Your task to perform on an android device: toggle improve location accuracy Image 0: 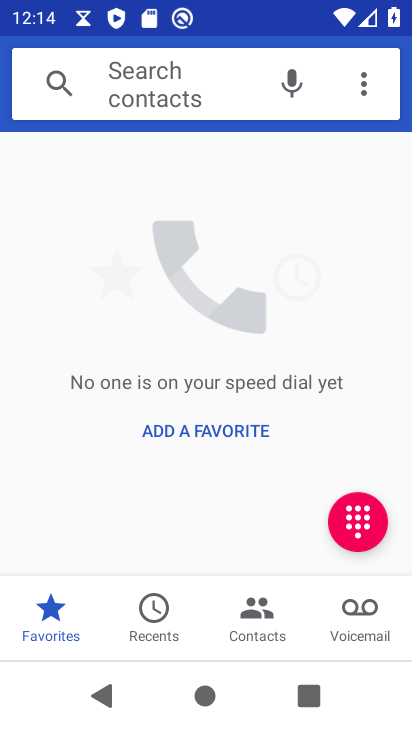
Step 0: press back button
Your task to perform on an android device: toggle improve location accuracy Image 1: 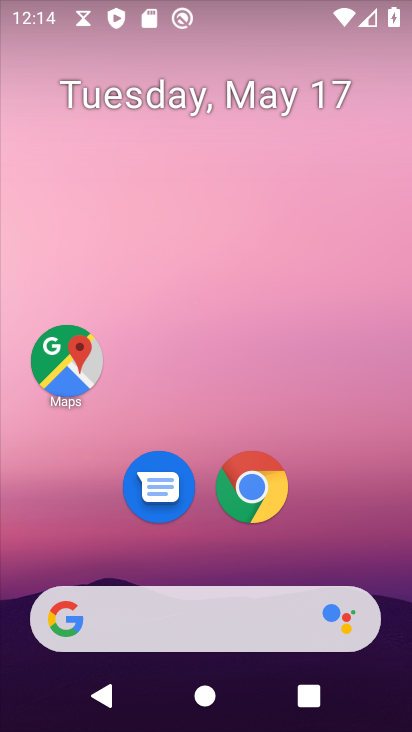
Step 1: drag from (370, 546) to (290, 51)
Your task to perform on an android device: toggle improve location accuracy Image 2: 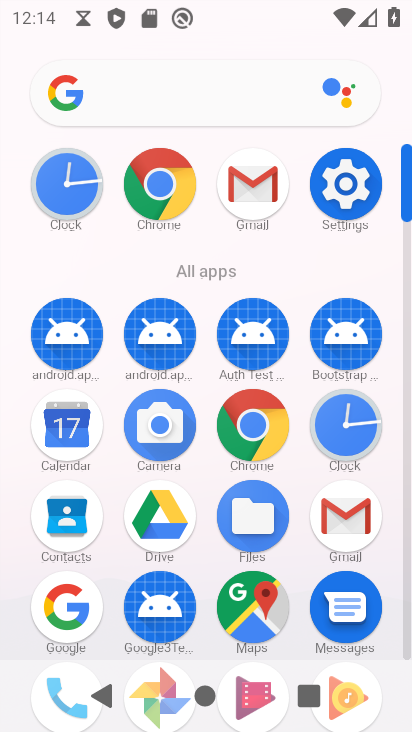
Step 2: click (344, 183)
Your task to perform on an android device: toggle improve location accuracy Image 3: 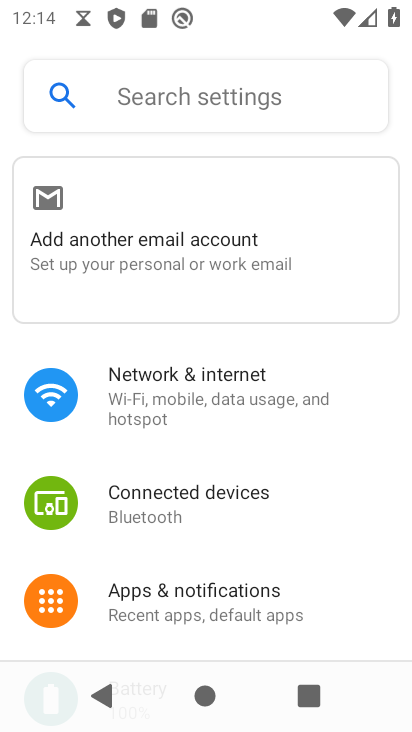
Step 3: drag from (280, 531) to (305, 182)
Your task to perform on an android device: toggle improve location accuracy Image 4: 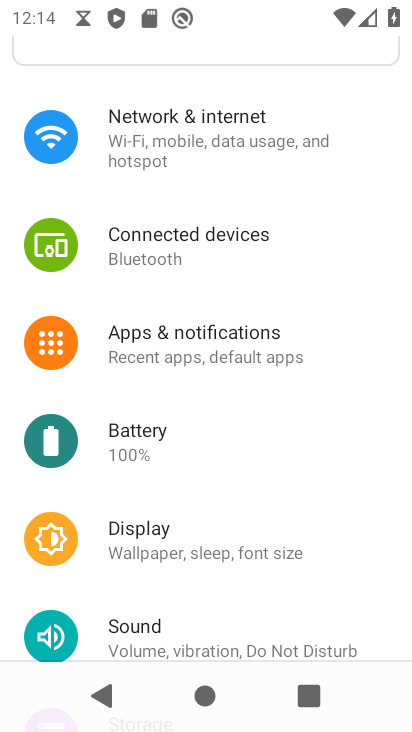
Step 4: drag from (258, 555) to (278, 162)
Your task to perform on an android device: toggle improve location accuracy Image 5: 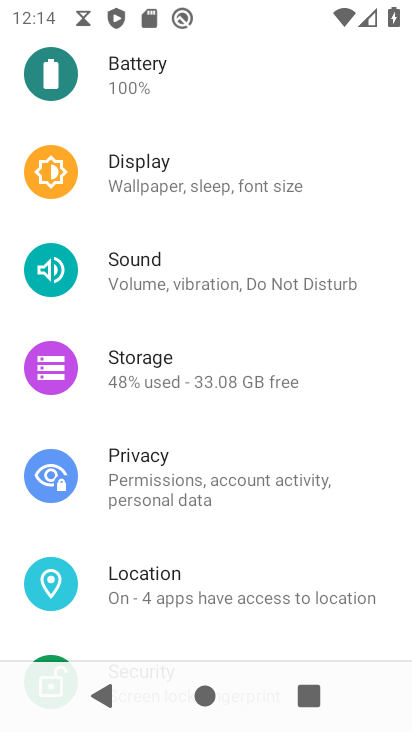
Step 5: drag from (257, 520) to (270, 165)
Your task to perform on an android device: toggle improve location accuracy Image 6: 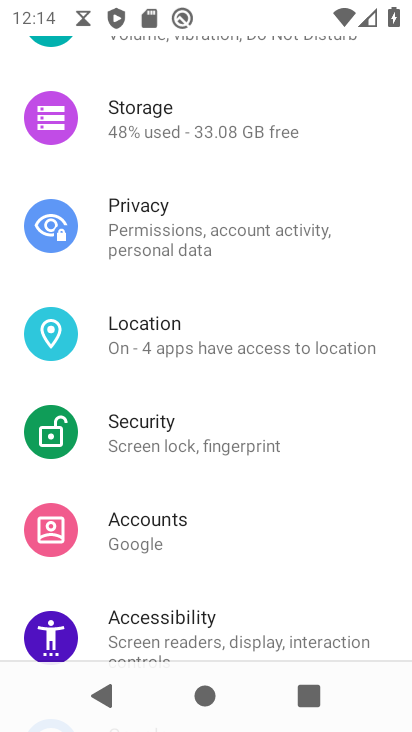
Step 6: click (163, 335)
Your task to perform on an android device: toggle improve location accuracy Image 7: 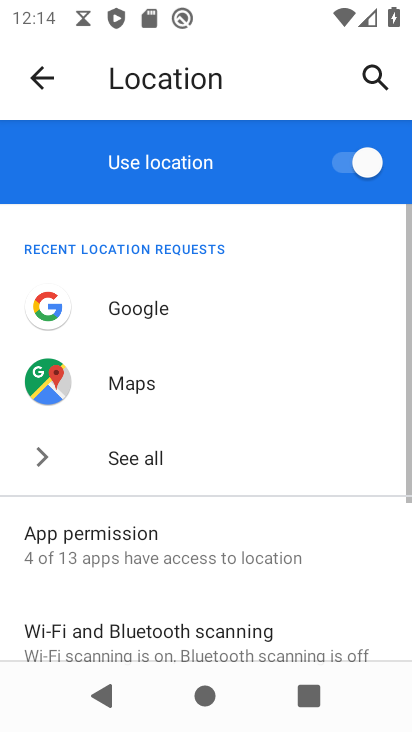
Step 7: drag from (257, 569) to (246, 176)
Your task to perform on an android device: toggle improve location accuracy Image 8: 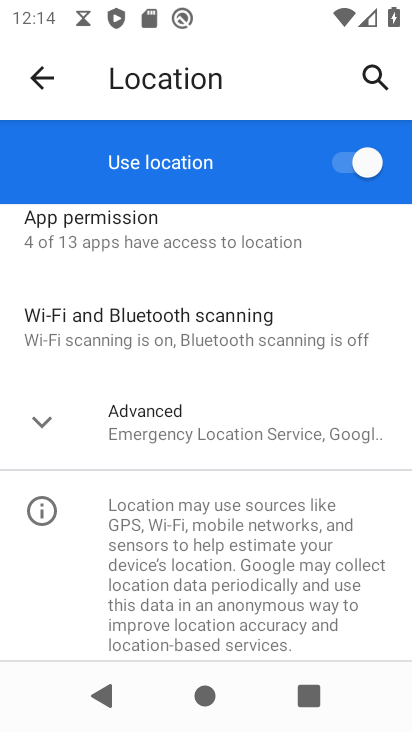
Step 8: click (144, 418)
Your task to perform on an android device: toggle improve location accuracy Image 9: 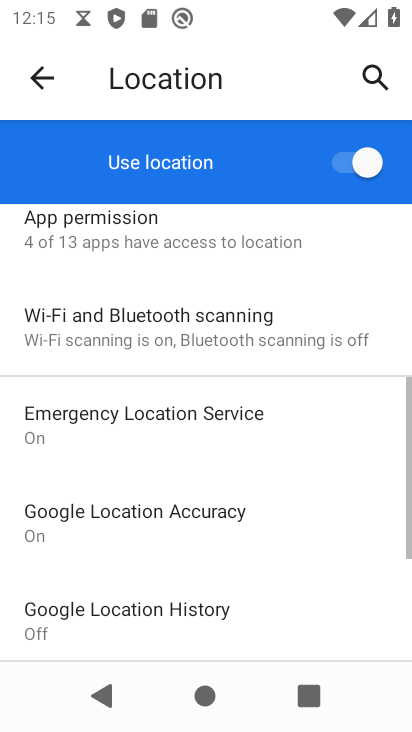
Step 9: drag from (200, 596) to (216, 249)
Your task to perform on an android device: toggle improve location accuracy Image 10: 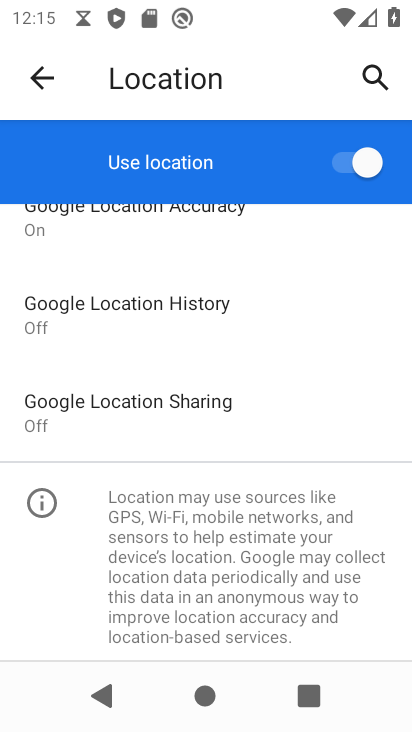
Step 10: drag from (258, 353) to (266, 475)
Your task to perform on an android device: toggle improve location accuracy Image 11: 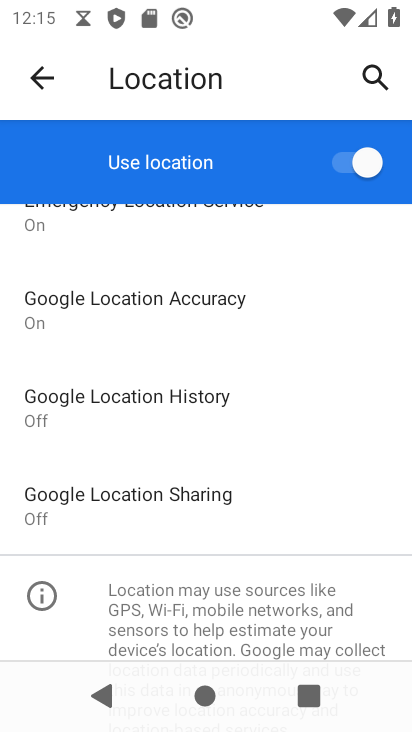
Step 11: click (160, 295)
Your task to perform on an android device: toggle improve location accuracy Image 12: 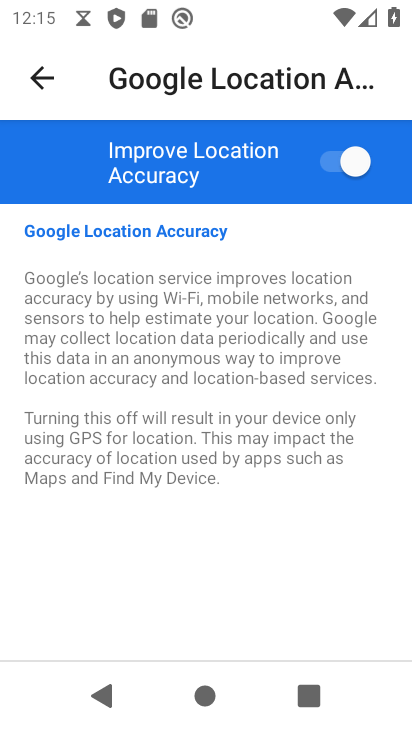
Step 12: click (340, 149)
Your task to perform on an android device: toggle improve location accuracy Image 13: 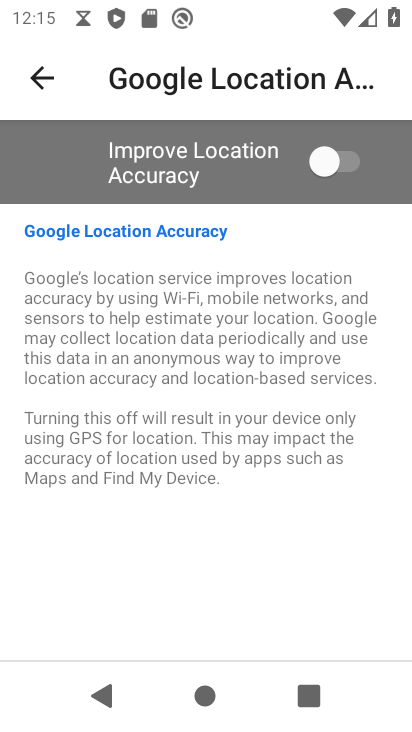
Step 13: task complete